Your task to perform on an android device: Go to location settings Image 0: 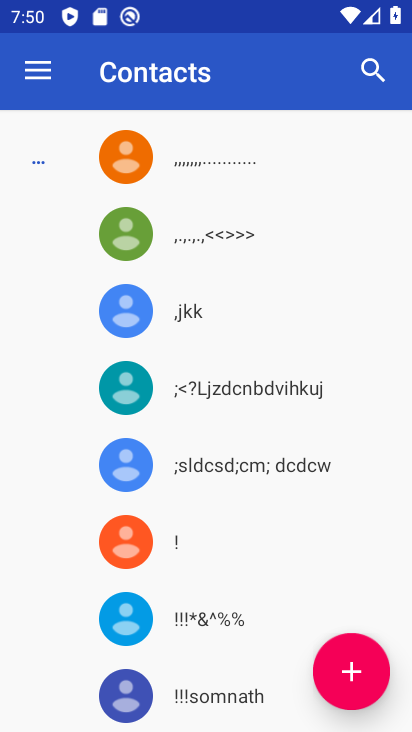
Step 0: press home button
Your task to perform on an android device: Go to location settings Image 1: 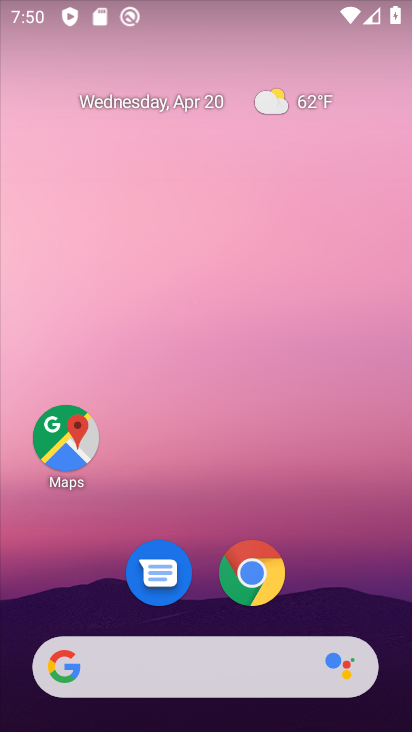
Step 1: drag from (234, 629) to (200, 80)
Your task to perform on an android device: Go to location settings Image 2: 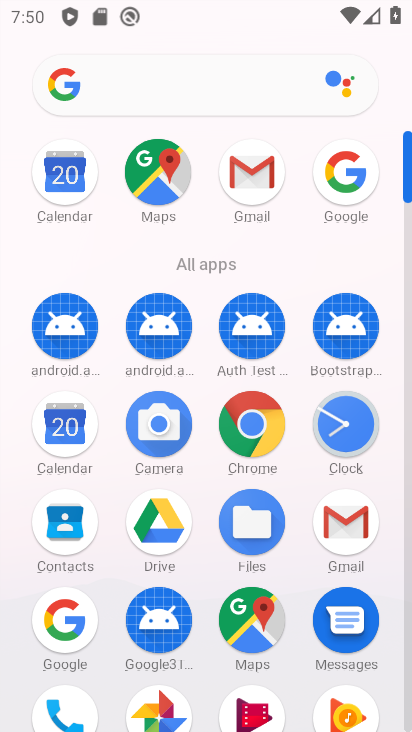
Step 2: drag from (181, 519) to (146, 166)
Your task to perform on an android device: Go to location settings Image 3: 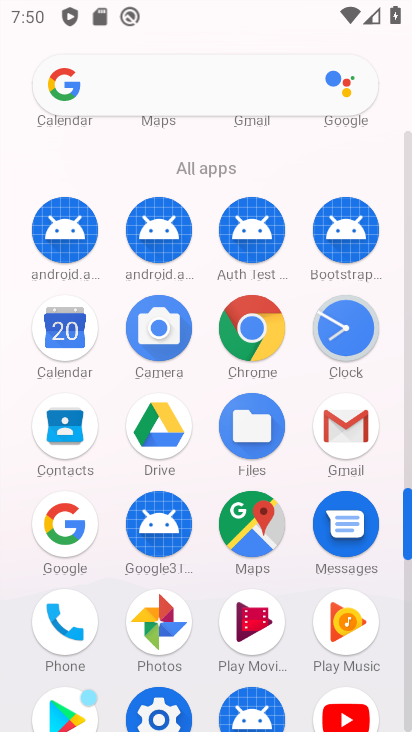
Step 3: click (165, 715)
Your task to perform on an android device: Go to location settings Image 4: 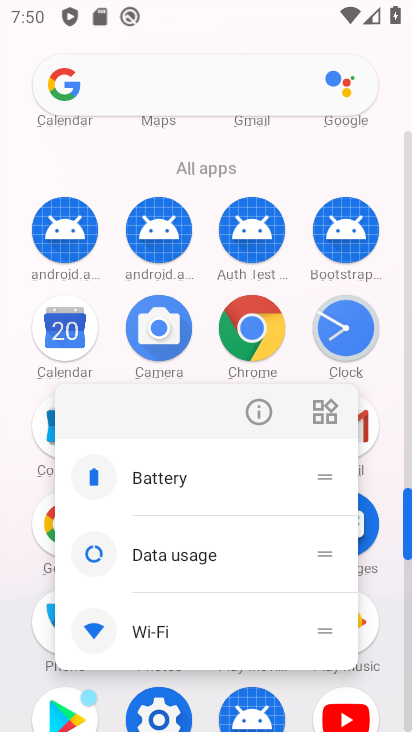
Step 4: click (170, 695)
Your task to perform on an android device: Go to location settings Image 5: 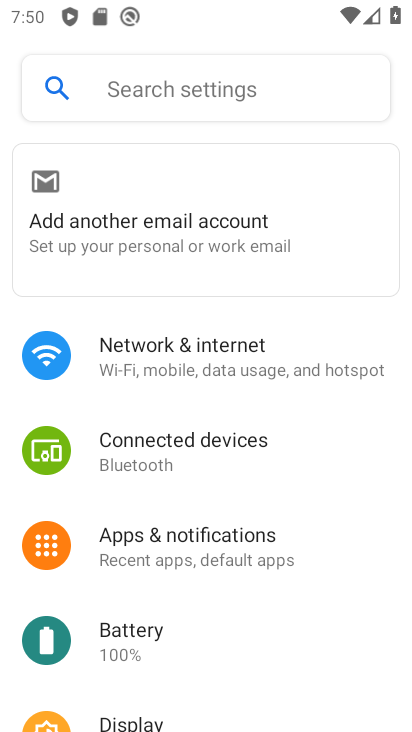
Step 5: drag from (276, 309) to (317, 67)
Your task to perform on an android device: Go to location settings Image 6: 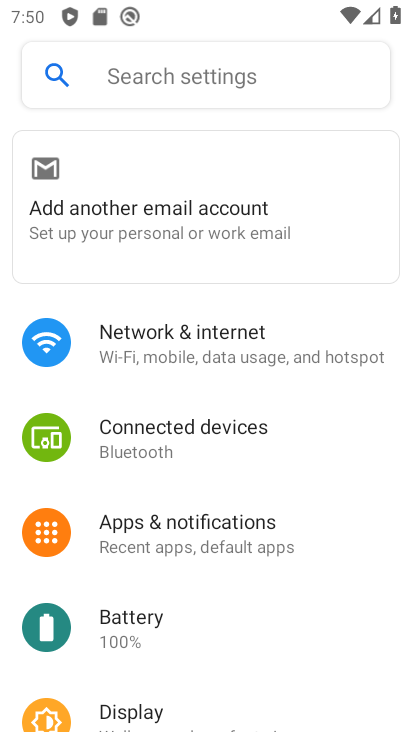
Step 6: drag from (191, 669) to (288, 139)
Your task to perform on an android device: Go to location settings Image 7: 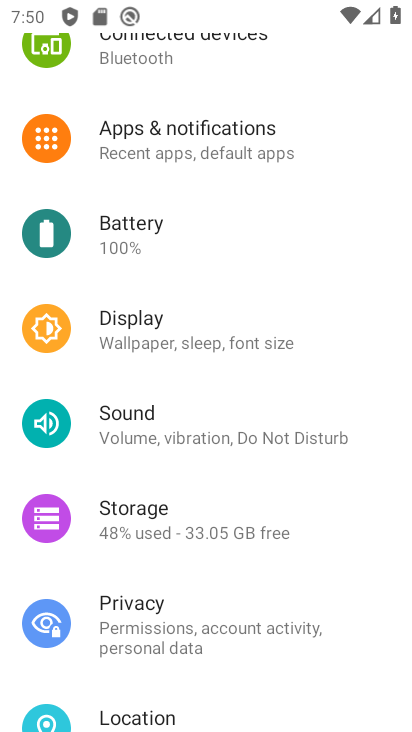
Step 7: click (158, 717)
Your task to perform on an android device: Go to location settings Image 8: 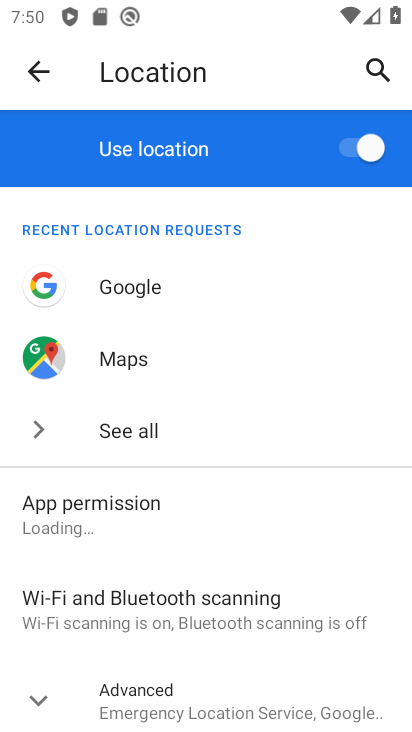
Step 8: drag from (200, 552) to (246, 225)
Your task to perform on an android device: Go to location settings Image 9: 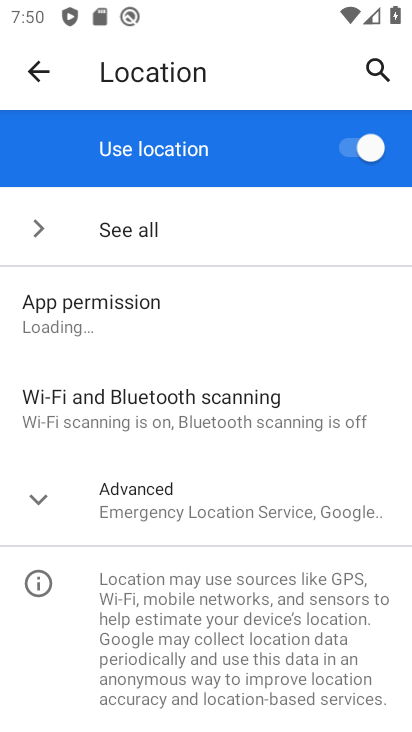
Step 9: click (238, 516)
Your task to perform on an android device: Go to location settings Image 10: 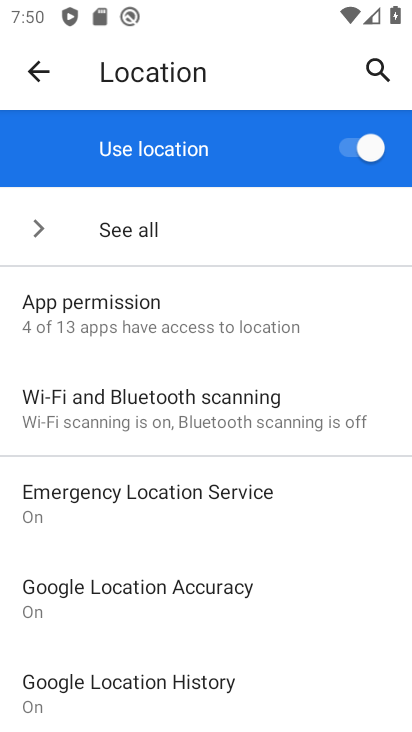
Step 10: task complete